Your task to perform on an android device: open the mobile data screen to see how much data has been used Image 0: 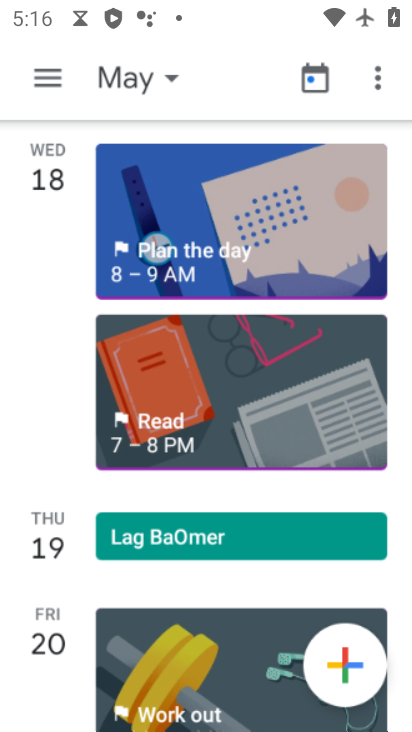
Step 0: drag from (354, 682) to (241, 240)
Your task to perform on an android device: open the mobile data screen to see how much data has been used Image 1: 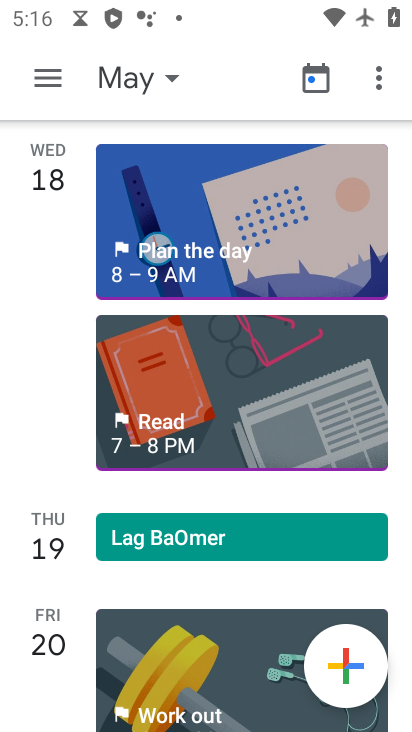
Step 1: press back button
Your task to perform on an android device: open the mobile data screen to see how much data has been used Image 2: 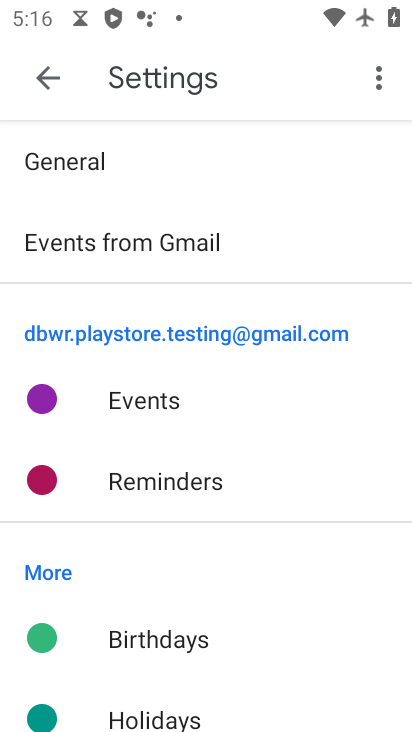
Step 2: click (55, 68)
Your task to perform on an android device: open the mobile data screen to see how much data has been used Image 3: 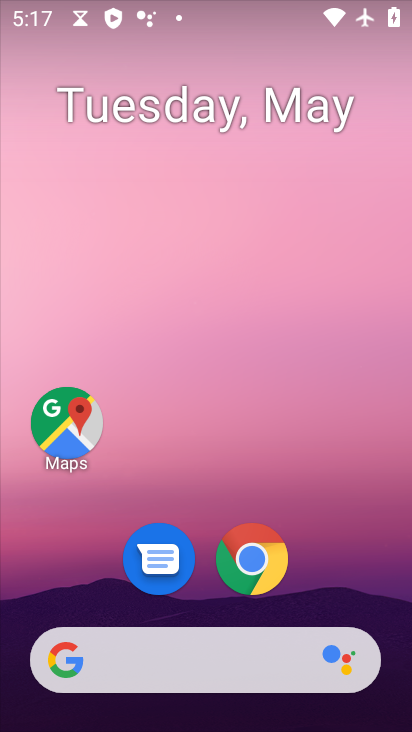
Step 3: drag from (280, 690) to (204, 151)
Your task to perform on an android device: open the mobile data screen to see how much data has been used Image 4: 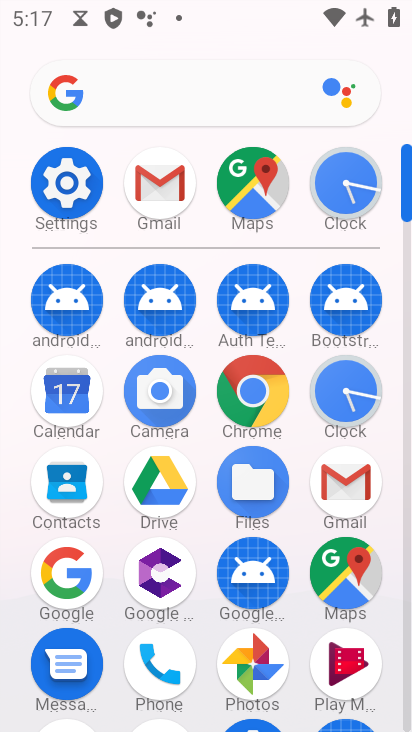
Step 4: click (72, 178)
Your task to perform on an android device: open the mobile data screen to see how much data has been used Image 5: 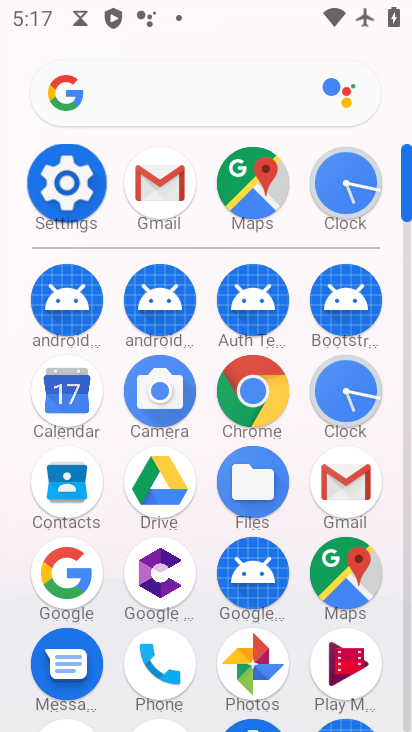
Step 5: click (73, 178)
Your task to perform on an android device: open the mobile data screen to see how much data has been used Image 6: 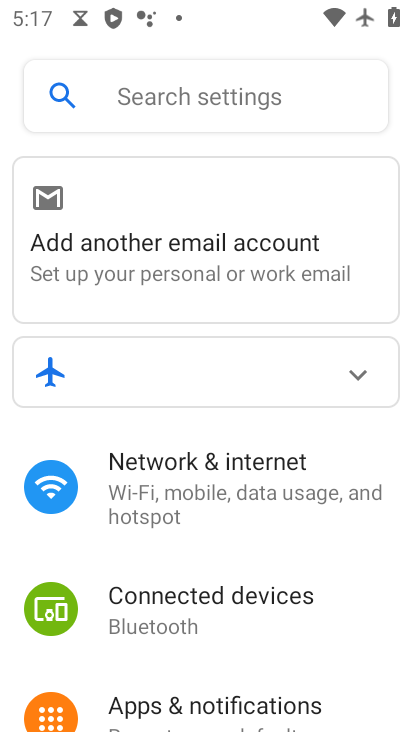
Step 6: click (209, 474)
Your task to perform on an android device: open the mobile data screen to see how much data has been used Image 7: 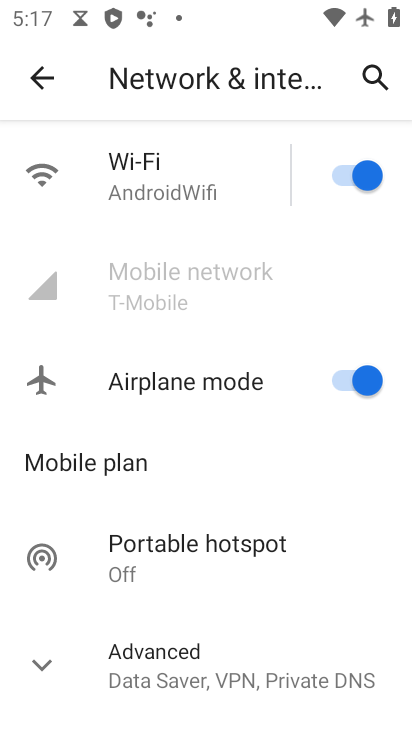
Step 7: click (142, 266)
Your task to perform on an android device: open the mobile data screen to see how much data has been used Image 8: 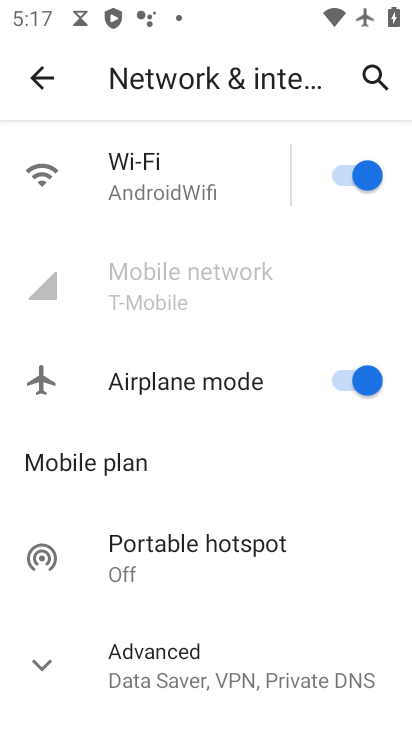
Step 8: click (144, 265)
Your task to perform on an android device: open the mobile data screen to see how much data has been used Image 9: 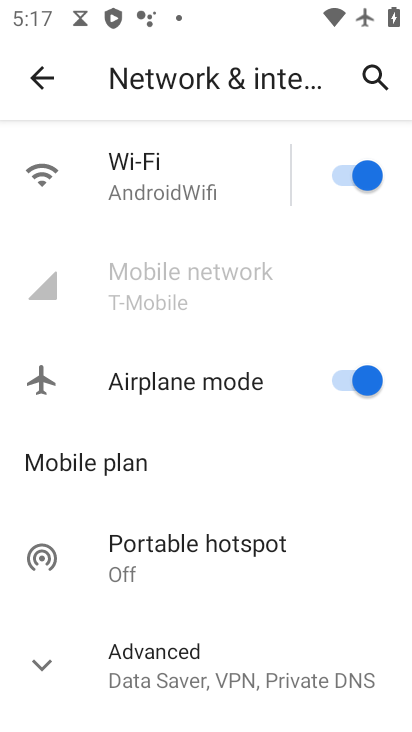
Step 9: click (146, 263)
Your task to perform on an android device: open the mobile data screen to see how much data has been used Image 10: 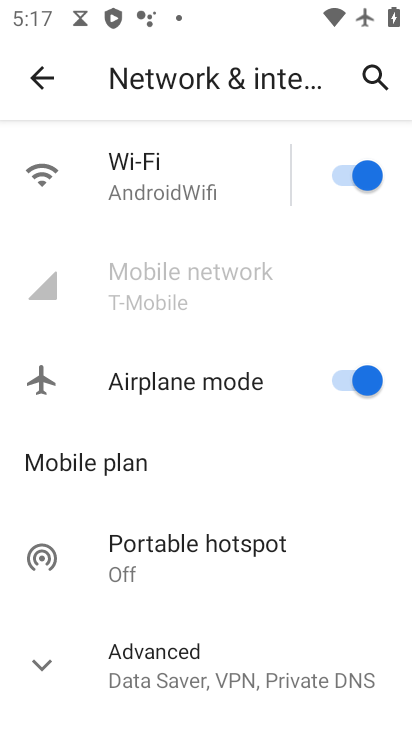
Step 10: click (361, 381)
Your task to perform on an android device: open the mobile data screen to see how much data has been used Image 11: 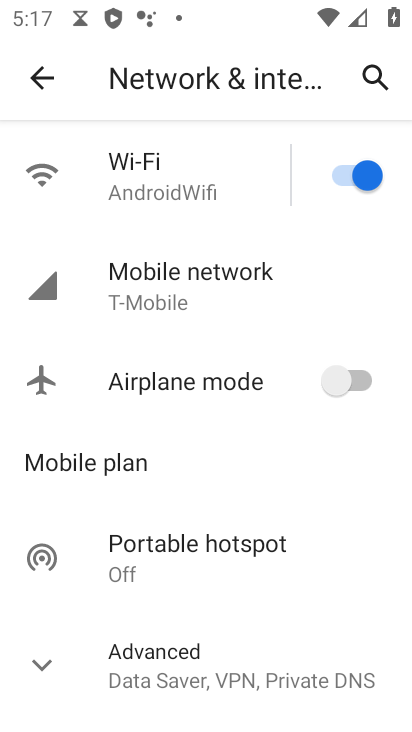
Step 11: click (168, 293)
Your task to perform on an android device: open the mobile data screen to see how much data has been used Image 12: 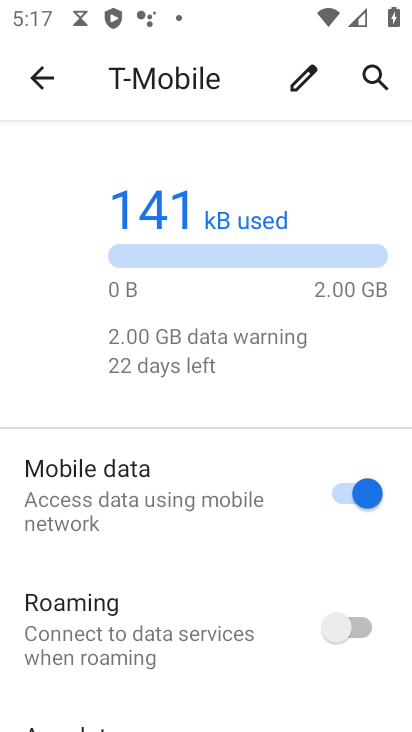
Step 12: task complete